Your task to perform on an android device: change the clock display to show seconds Image 0: 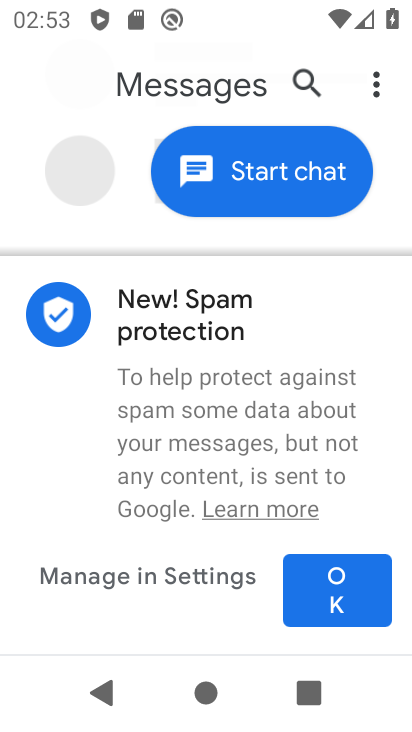
Step 0: press home button
Your task to perform on an android device: change the clock display to show seconds Image 1: 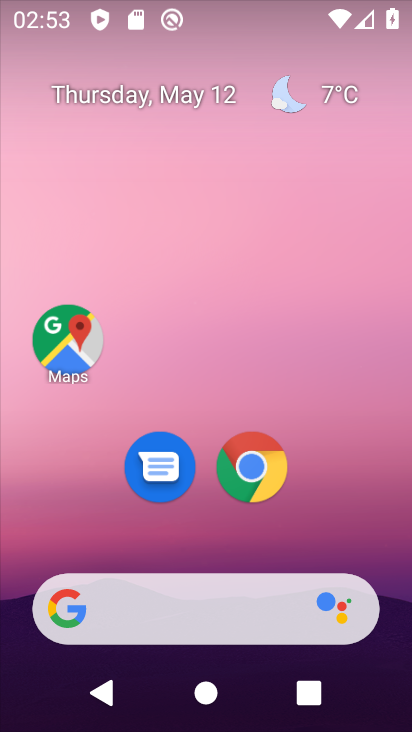
Step 1: drag from (317, 526) to (304, 126)
Your task to perform on an android device: change the clock display to show seconds Image 2: 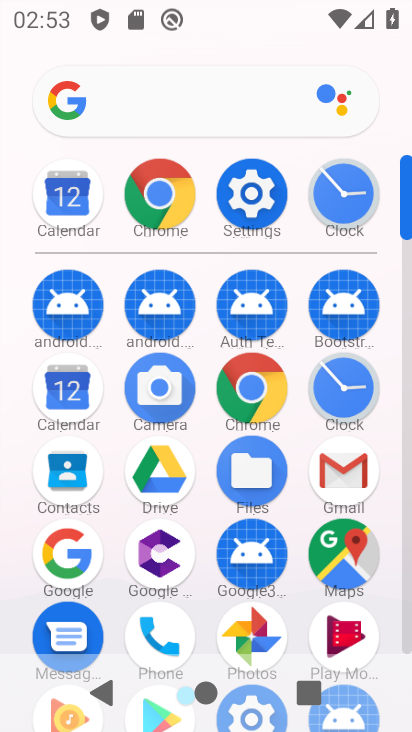
Step 2: click (325, 196)
Your task to perform on an android device: change the clock display to show seconds Image 3: 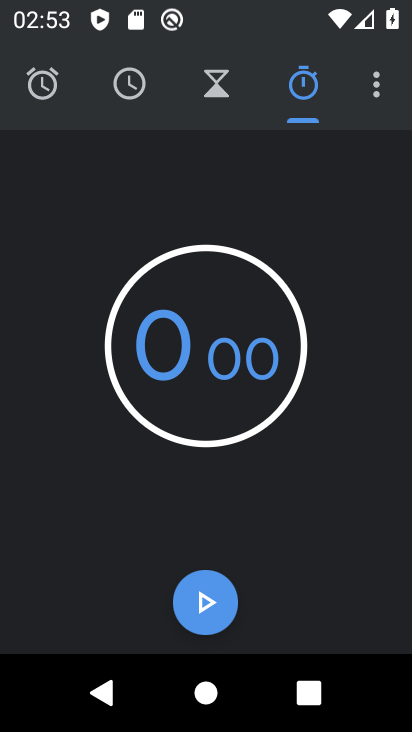
Step 3: click (370, 95)
Your task to perform on an android device: change the clock display to show seconds Image 4: 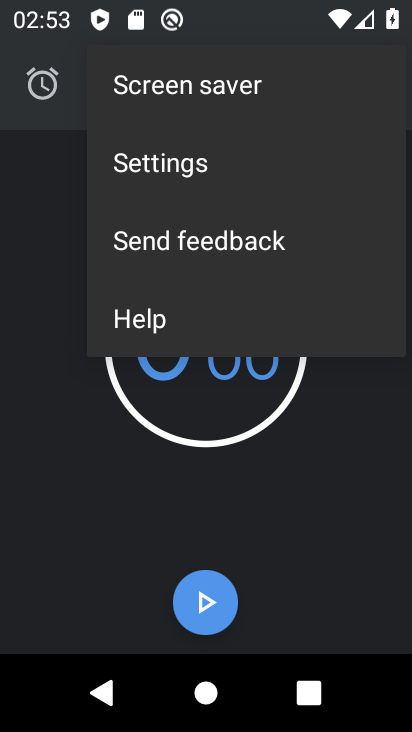
Step 4: click (184, 175)
Your task to perform on an android device: change the clock display to show seconds Image 5: 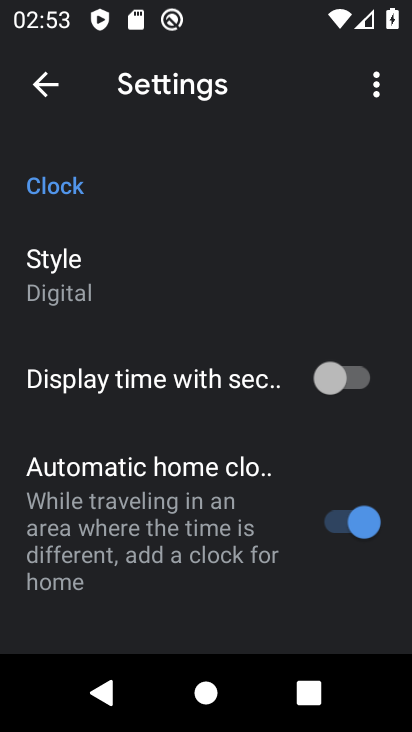
Step 5: click (315, 365)
Your task to perform on an android device: change the clock display to show seconds Image 6: 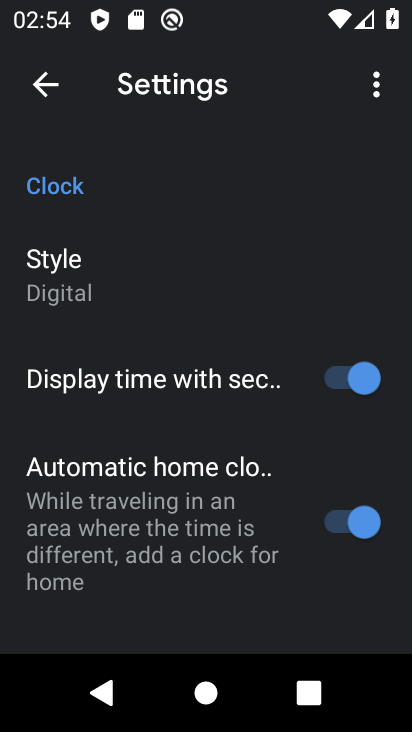
Step 6: task complete